Your task to perform on an android device: Play the last video I watched on Youtube Image 0: 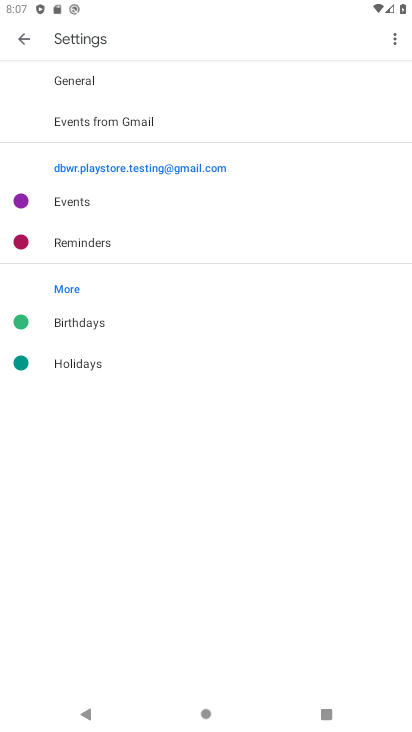
Step 0: press home button
Your task to perform on an android device: Play the last video I watched on Youtube Image 1: 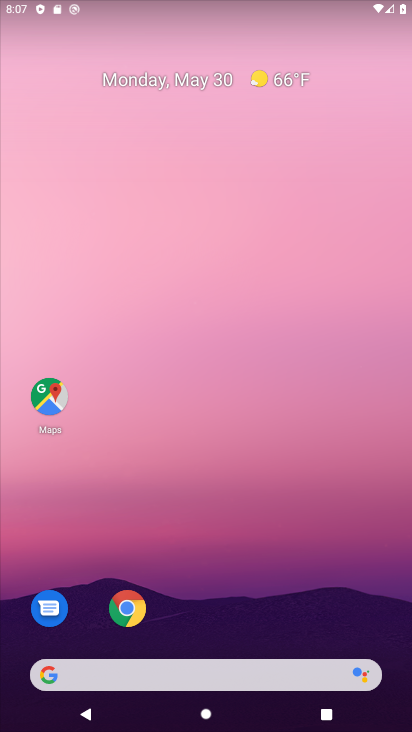
Step 1: drag from (231, 723) to (232, 627)
Your task to perform on an android device: Play the last video I watched on Youtube Image 2: 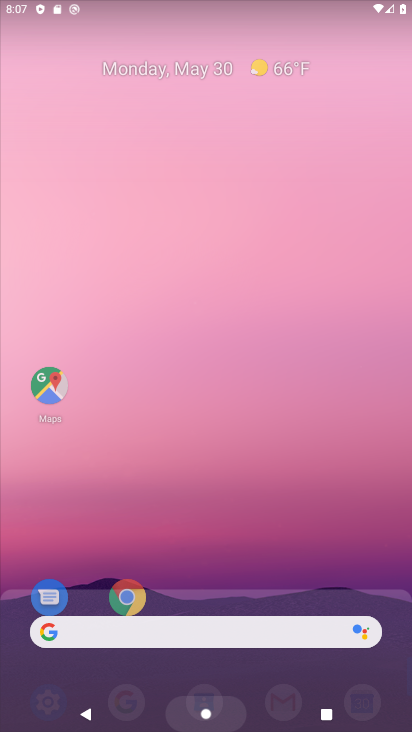
Step 2: click (213, 77)
Your task to perform on an android device: Play the last video I watched on Youtube Image 3: 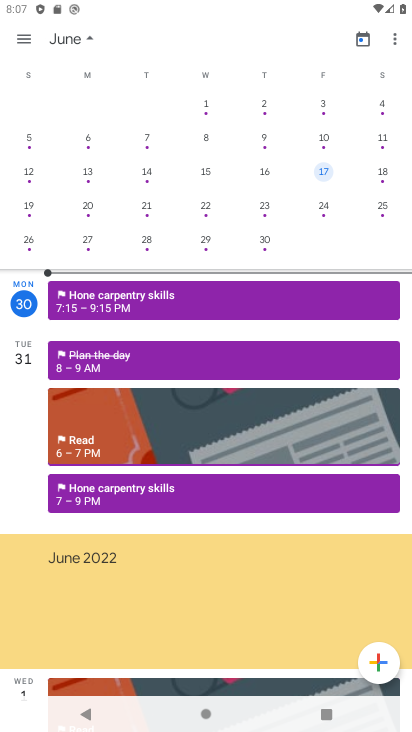
Step 3: press home button
Your task to perform on an android device: Play the last video I watched on Youtube Image 4: 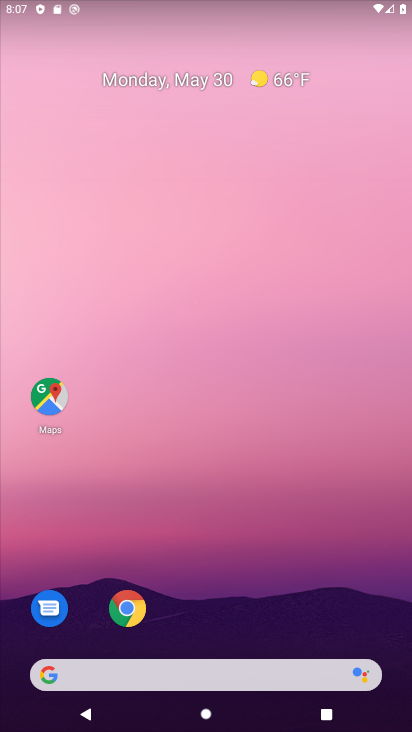
Step 4: drag from (224, 727) to (229, 69)
Your task to perform on an android device: Play the last video I watched on Youtube Image 5: 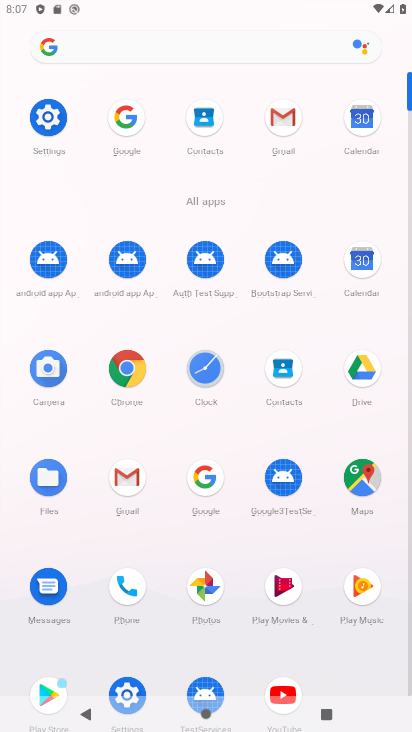
Step 5: click (282, 688)
Your task to perform on an android device: Play the last video I watched on Youtube Image 6: 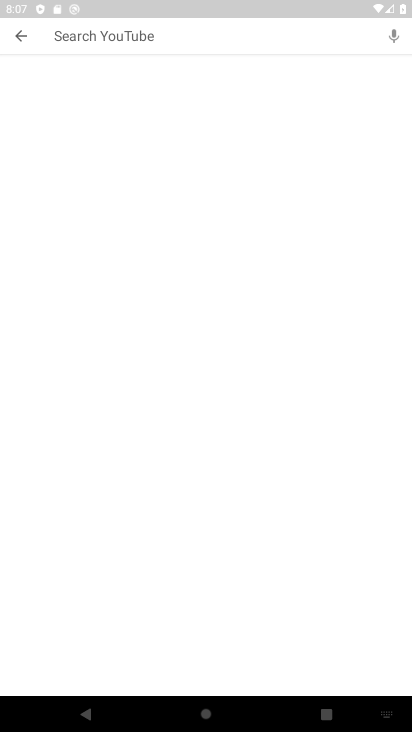
Step 6: click (23, 37)
Your task to perform on an android device: Play the last video I watched on Youtube Image 7: 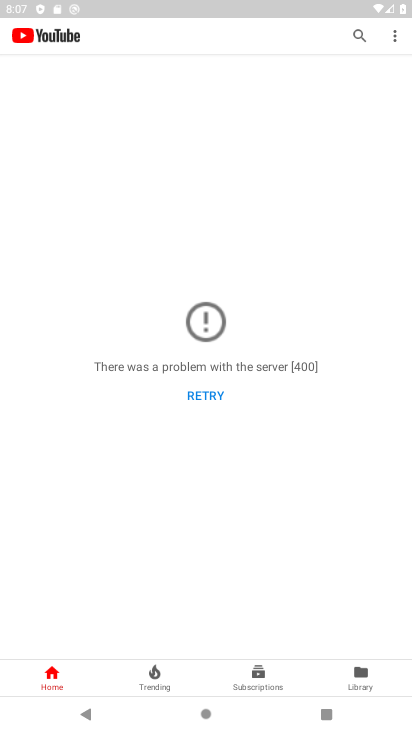
Step 7: click (362, 673)
Your task to perform on an android device: Play the last video I watched on Youtube Image 8: 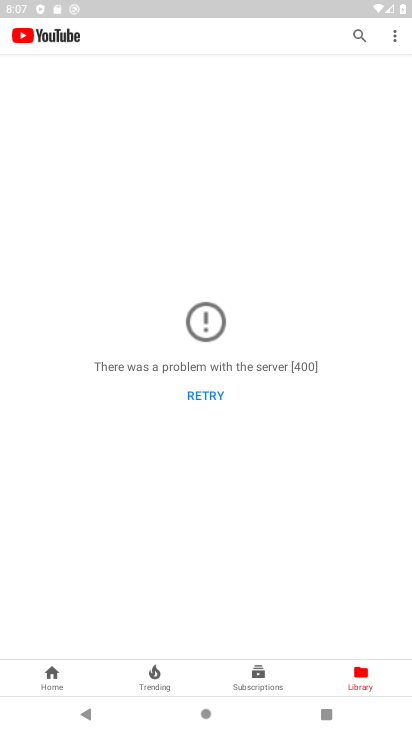
Step 8: click (353, 675)
Your task to perform on an android device: Play the last video I watched on Youtube Image 9: 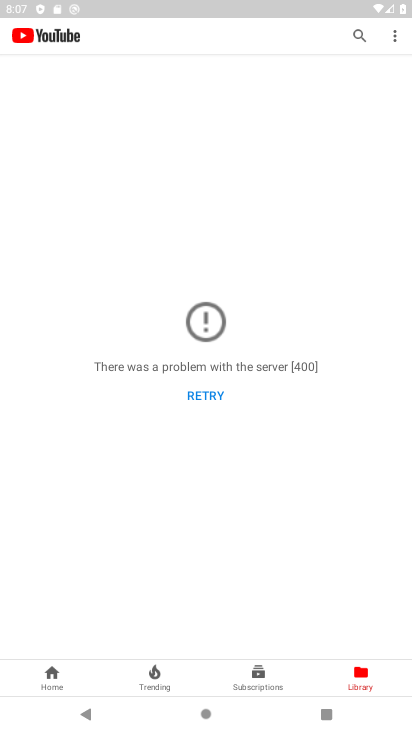
Step 9: task complete